Your task to perform on an android device: When is my next appointment? Image 0: 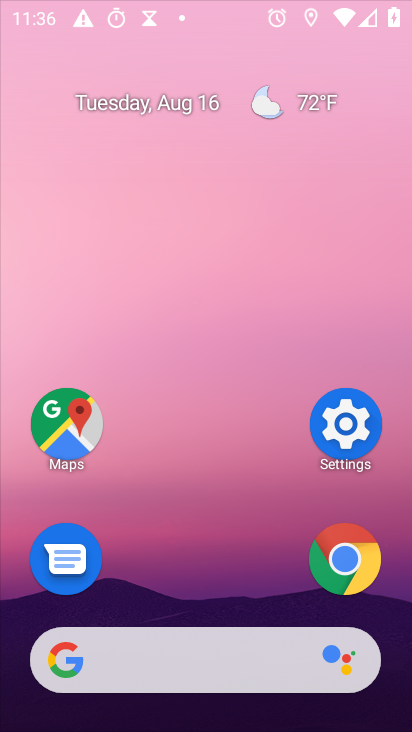
Step 0: press home button
Your task to perform on an android device: When is my next appointment? Image 1: 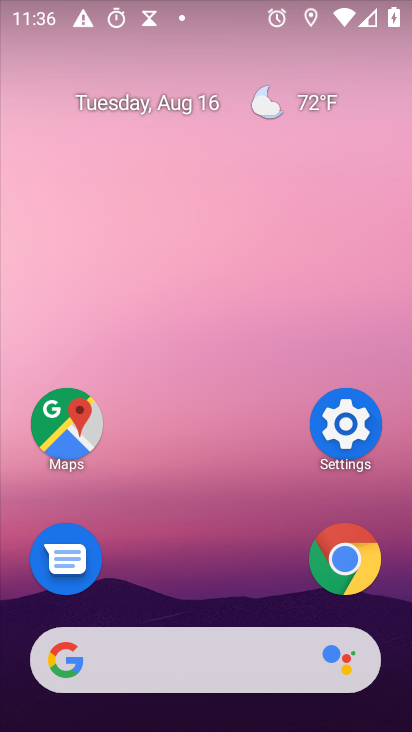
Step 1: drag from (154, 624) to (240, 66)
Your task to perform on an android device: When is my next appointment? Image 2: 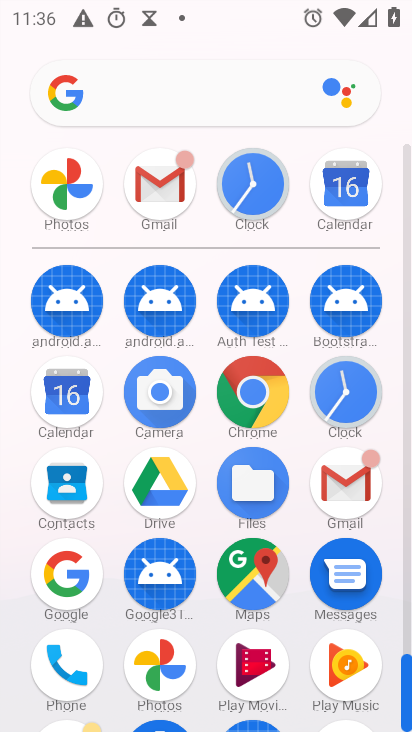
Step 2: click (63, 404)
Your task to perform on an android device: When is my next appointment? Image 3: 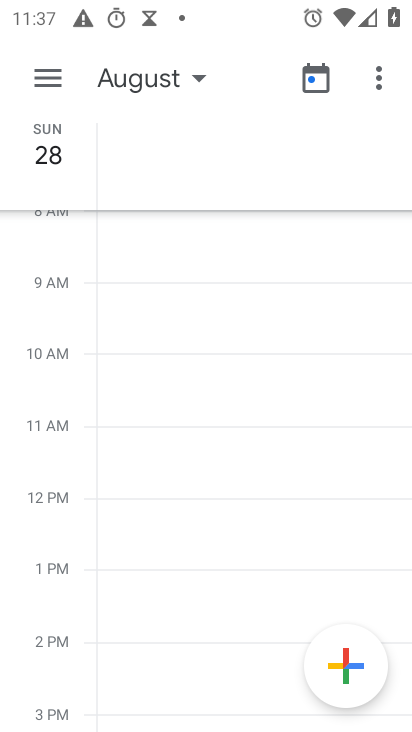
Step 3: click (152, 85)
Your task to perform on an android device: When is my next appointment? Image 4: 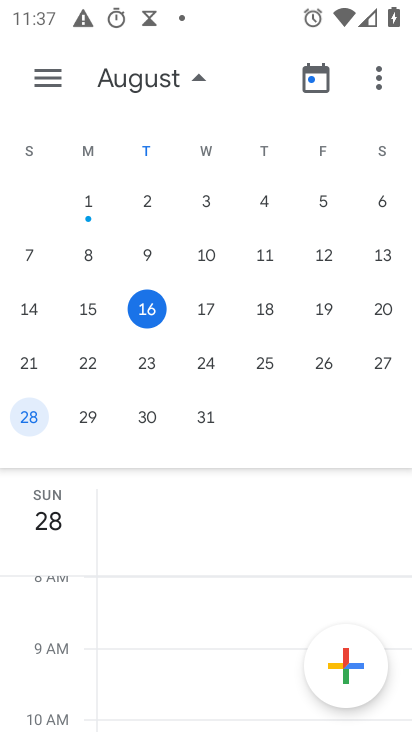
Step 4: click (40, 75)
Your task to perform on an android device: When is my next appointment? Image 5: 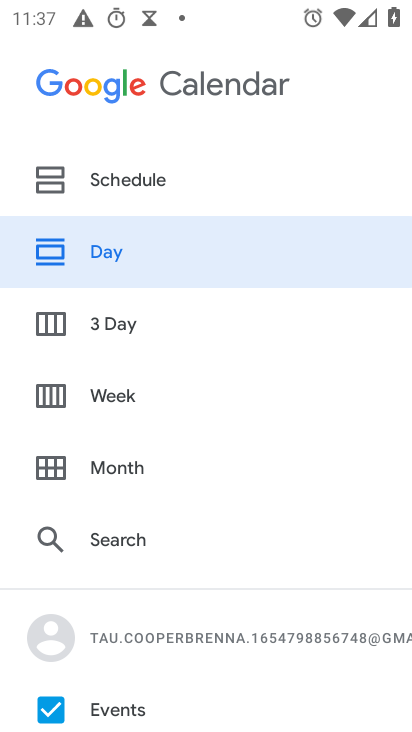
Step 5: click (119, 388)
Your task to perform on an android device: When is my next appointment? Image 6: 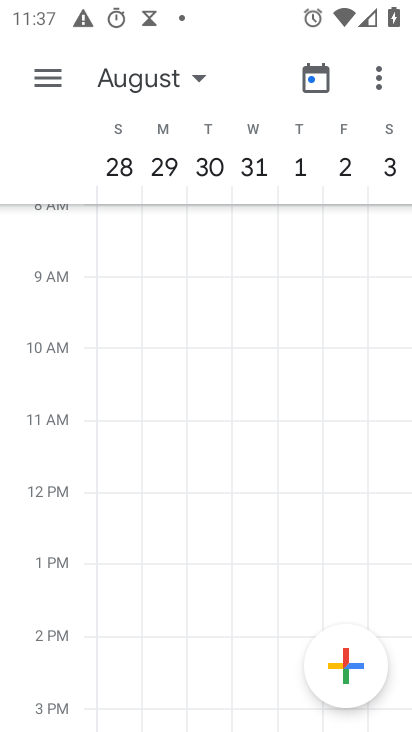
Step 6: click (25, 76)
Your task to perform on an android device: When is my next appointment? Image 7: 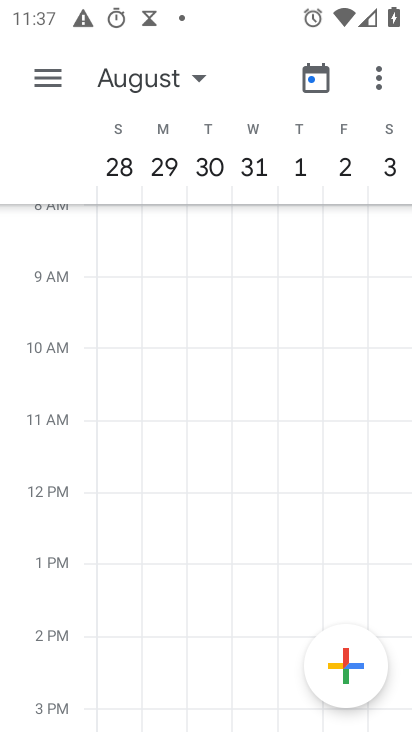
Step 7: click (49, 82)
Your task to perform on an android device: When is my next appointment? Image 8: 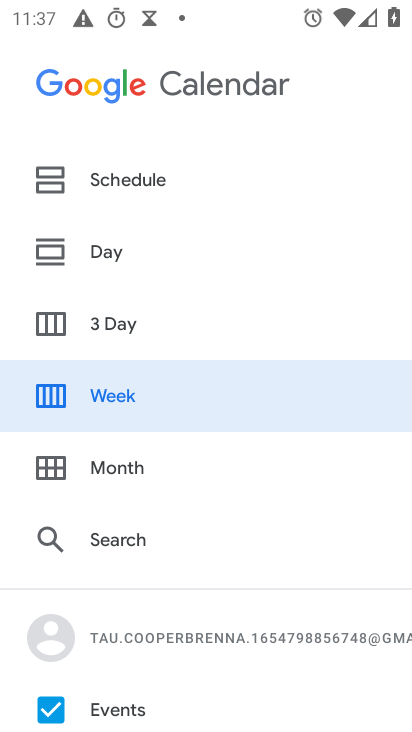
Step 8: click (102, 180)
Your task to perform on an android device: When is my next appointment? Image 9: 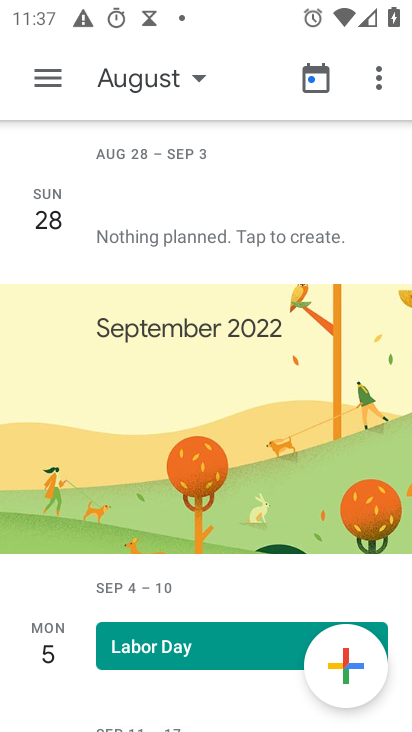
Step 9: task complete